Your task to perform on an android device: turn off notifications settings in the gmail app Image 0: 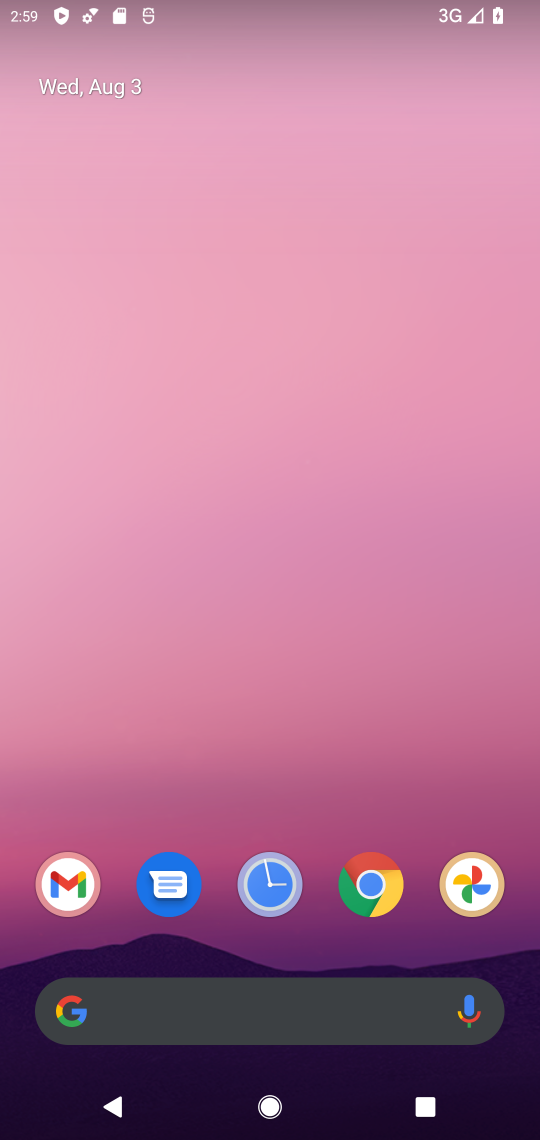
Step 0: drag from (194, 954) to (215, 256)
Your task to perform on an android device: turn off notifications settings in the gmail app Image 1: 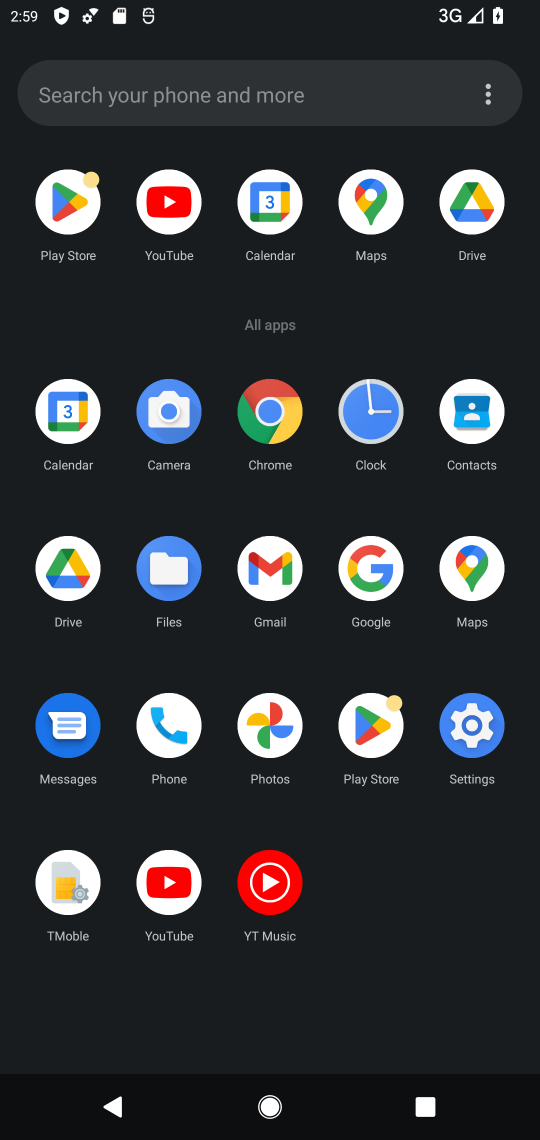
Step 1: click (459, 753)
Your task to perform on an android device: turn off notifications settings in the gmail app Image 2: 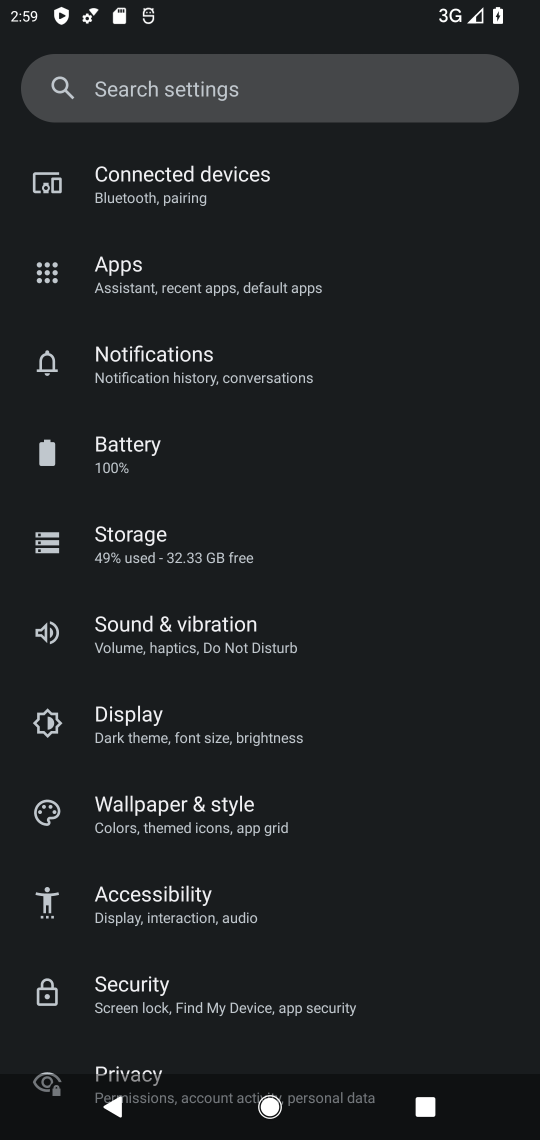
Step 2: click (293, 348)
Your task to perform on an android device: turn off notifications settings in the gmail app Image 3: 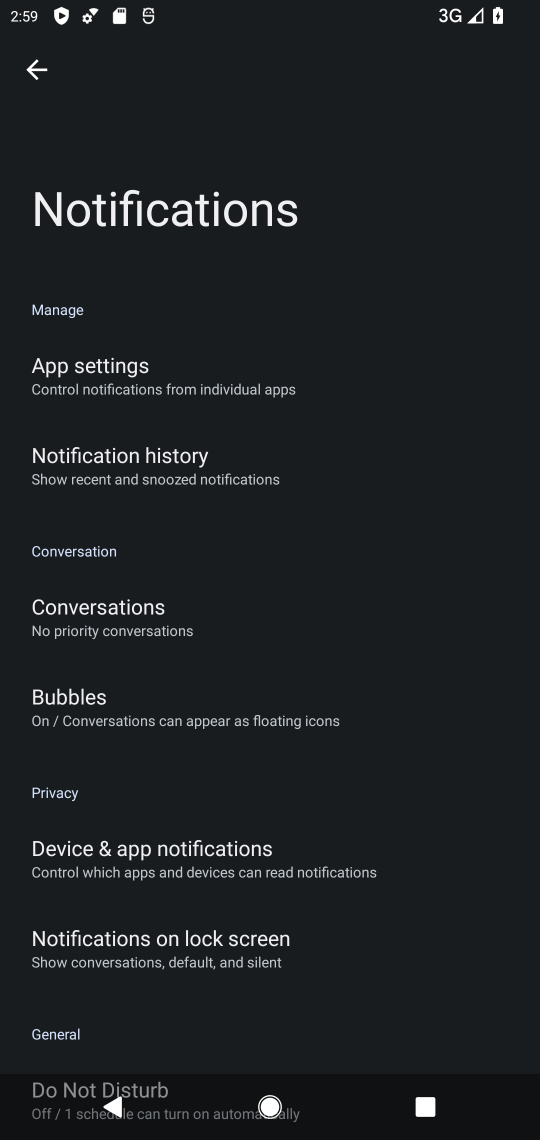
Step 3: press home button
Your task to perform on an android device: turn off notifications settings in the gmail app Image 4: 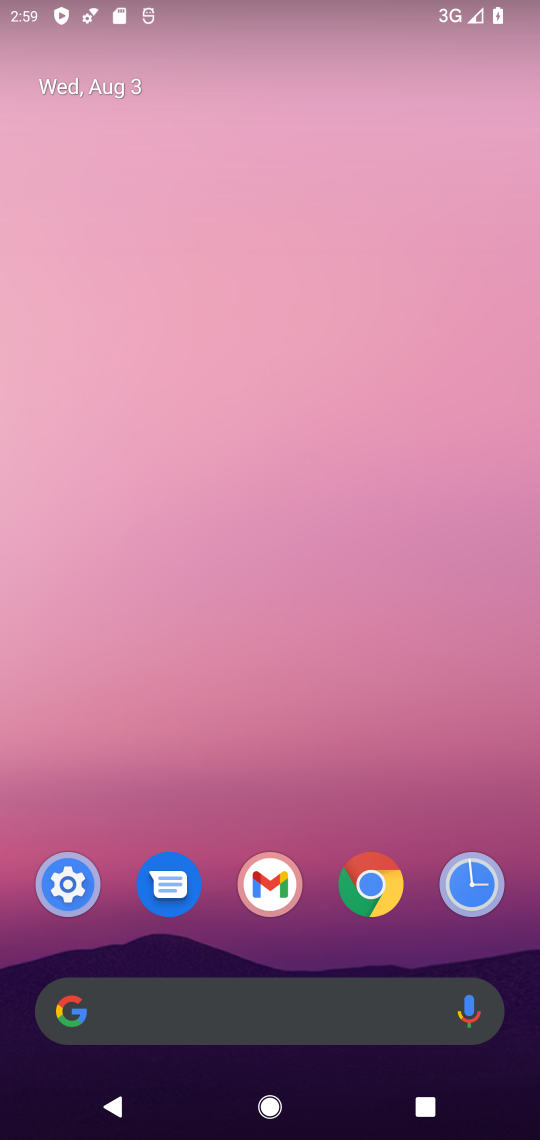
Step 4: click (49, 890)
Your task to perform on an android device: turn off notifications settings in the gmail app Image 5: 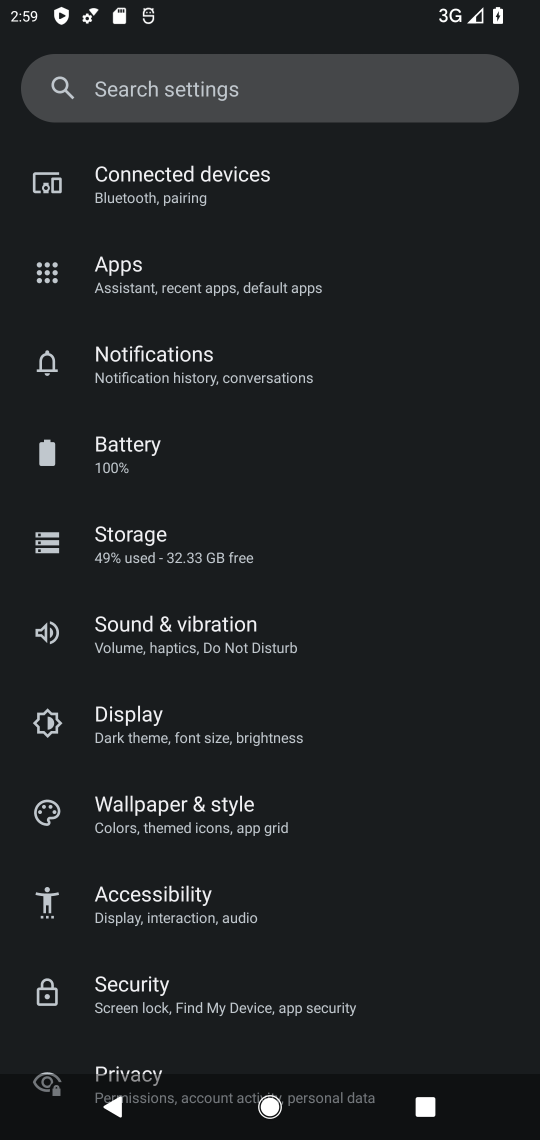
Step 5: task complete